Your task to perform on an android device: set an alarm Image 0: 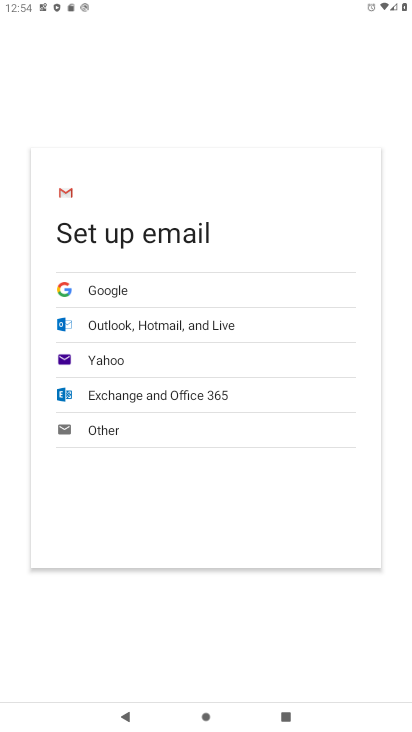
Step 0: press home button
Your task to perform on an android device: set an alarm Image 1: 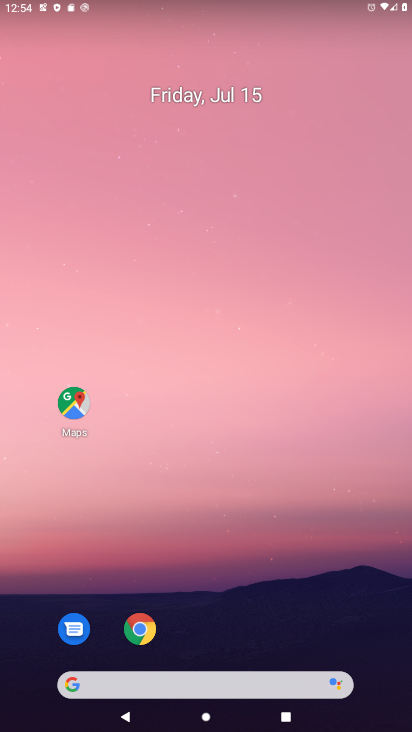
Step 1: drag from (274, 620) to (273, 58)
Your task to perform on an android device: set an alarm Image 2: 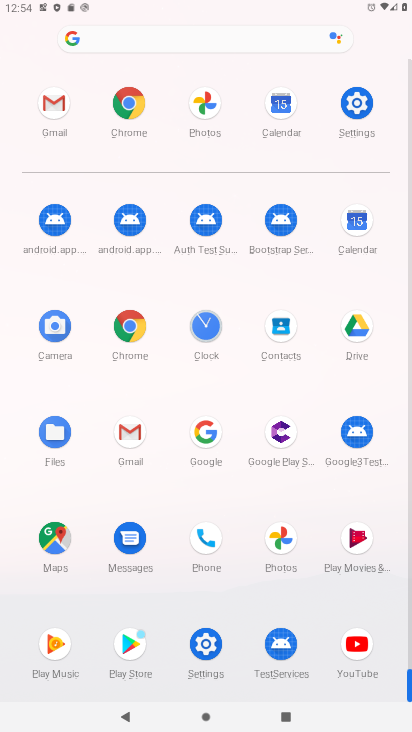
Step 2: click (223, 330)
Your task to perform on an android device: set an alarm Image 3: 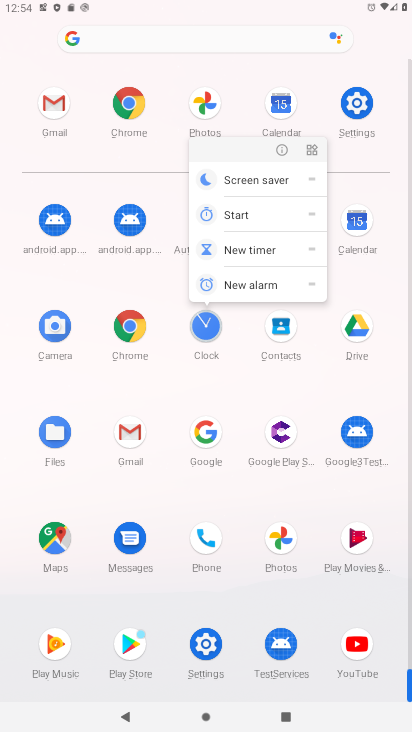
Step 3: click (200, 332)
Your task to perform on an android device: set an alarm Image 4: 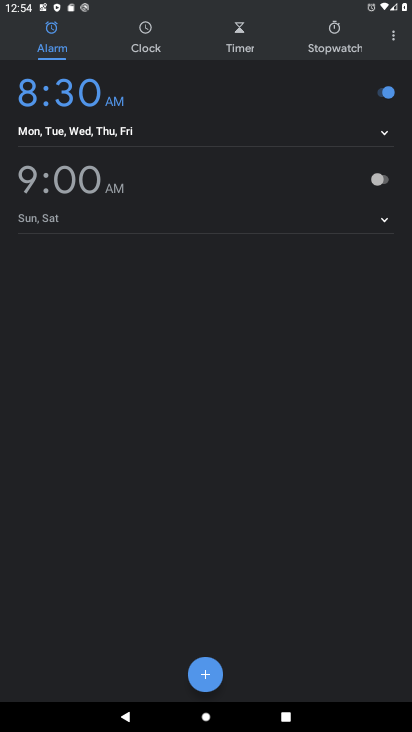
Step 4: click (381, 180)
Your task to perform on an android device: set an alarm Image 5: 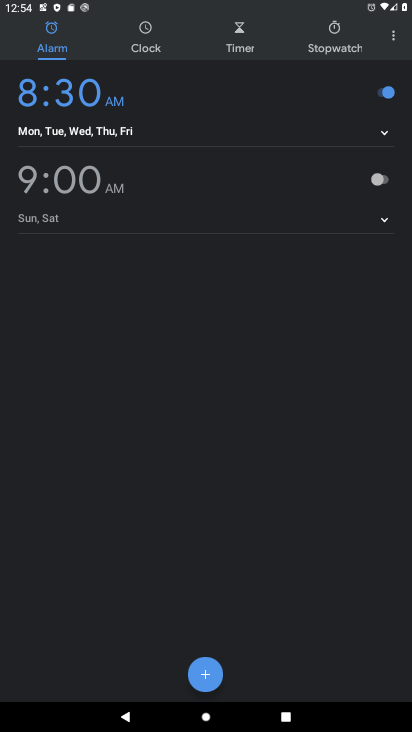
Step 5: click (379, 181)
Your task to perform on an android device: set an alarm Image 6: 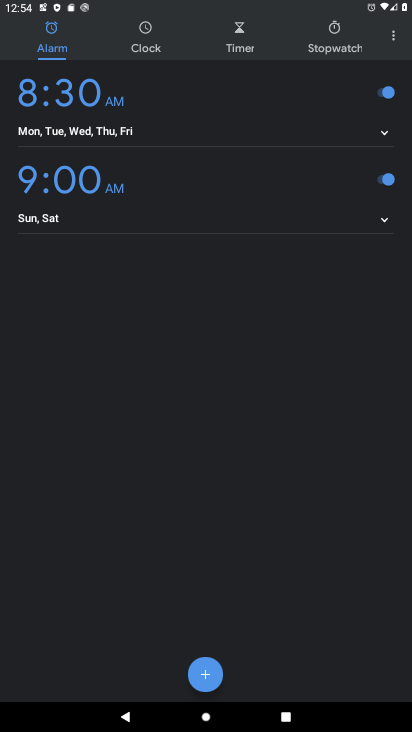
Step 6: task complete